Your task to perform on an android device: change the clock display to show seconds Image 0: 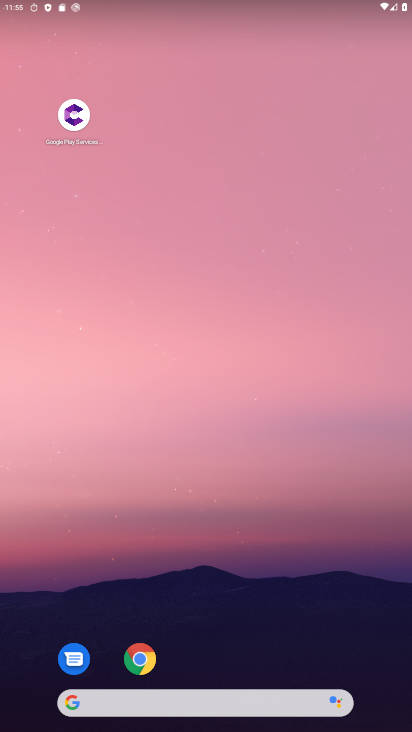
Step 0: drag from (257, 658) to (297, 14)
Your task to perform on an android device: change the clock display to show seconds Image 1: 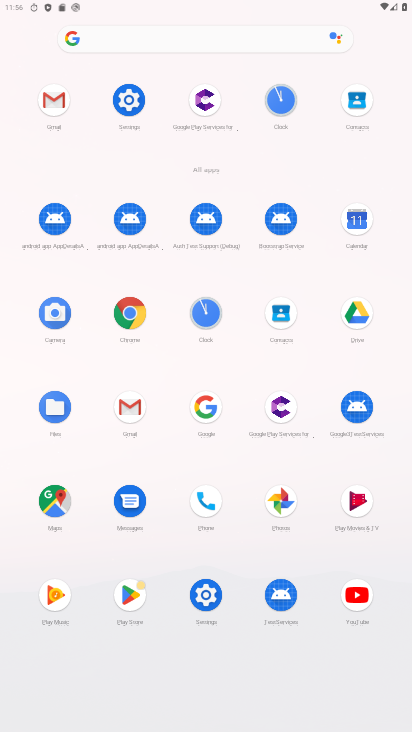
Step 1: click (210, 603)
Your task to perform on an android device: change the clock display to show seconds Image 2: 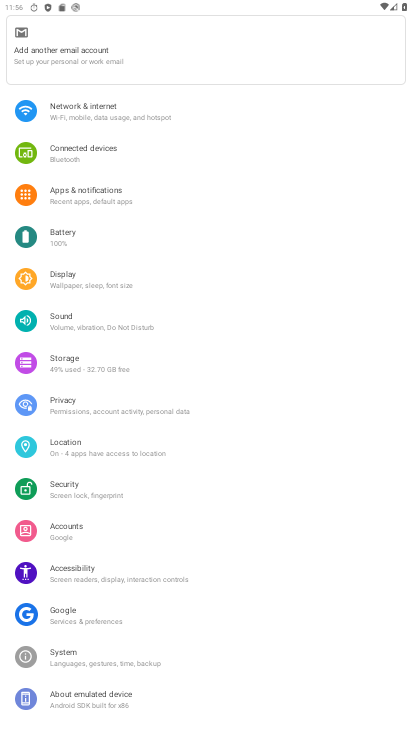
Step 2: press home button
Your task to perform on an android device: change the clock display to show seconds Image 3: 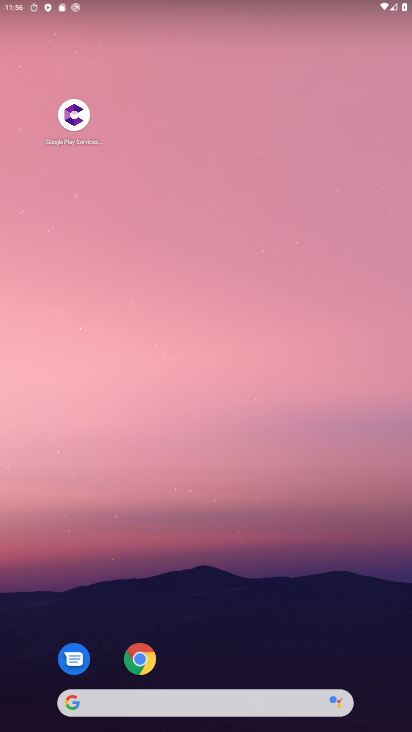
Step 3: drag from (267, 604) to (332, 14)
Your task to perform on an android device: change the clock display to show seconds Image 4: 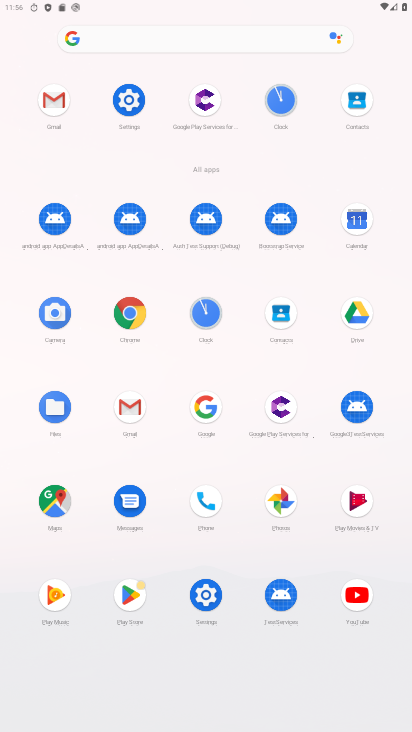
Step 4: click (203, 324)
Your task to perform on an android device: change the clock display to show seconds Image 5: 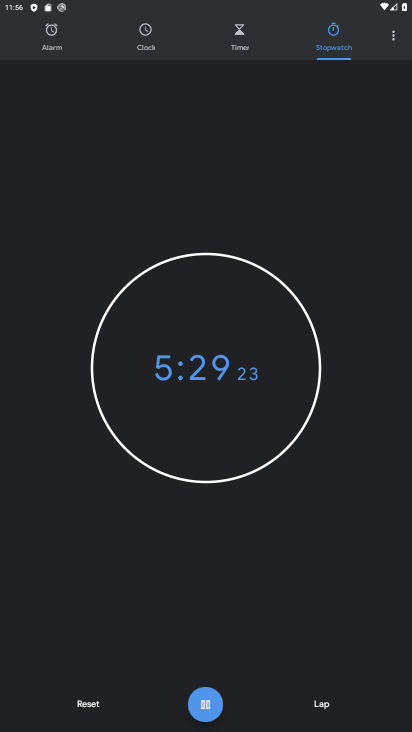
Step 5: click (388, 36)
Your task to perform on an android device: change the clock display to show seconds Image 6: 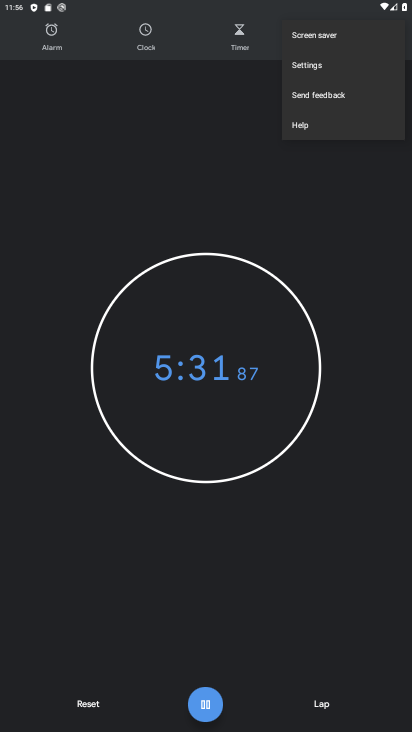
Step 6: click (301, 70)
Your task to perform on an android device: change the clock display to show seconds Image 7: 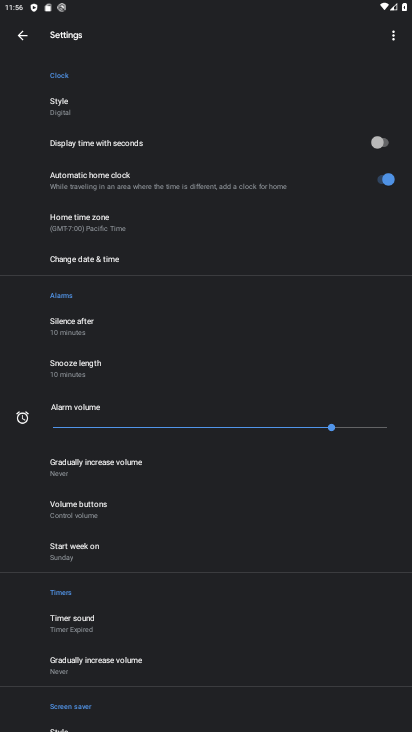
Step 7: click (327, 153)
Your task to perform on an android device: change the clock display to show seconds Image 8: 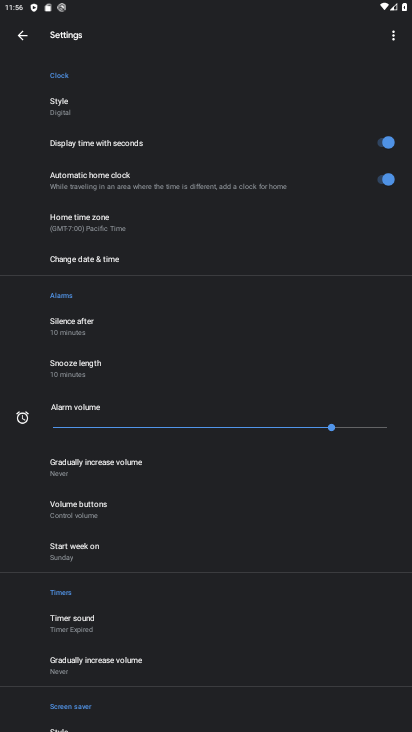
Step 8: task complete